Your task to perform on an android device: see tabs open on other devices in the chrome app Image 0: 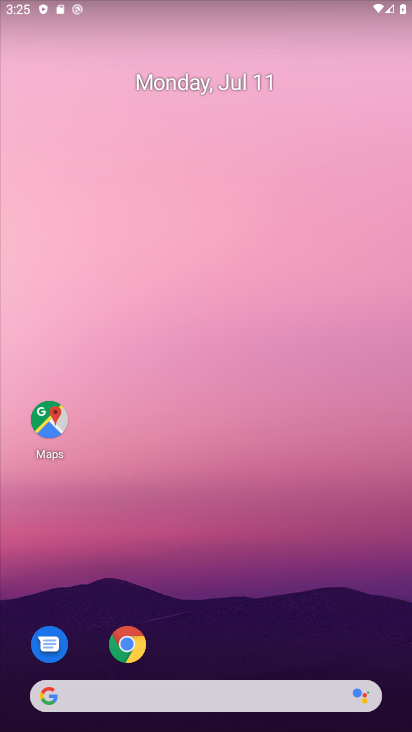
Step 0: drag from (209, 656) to (256, 0)
Your task to perform on an android device: see tabs open on other devices in the chrome app Image 1: 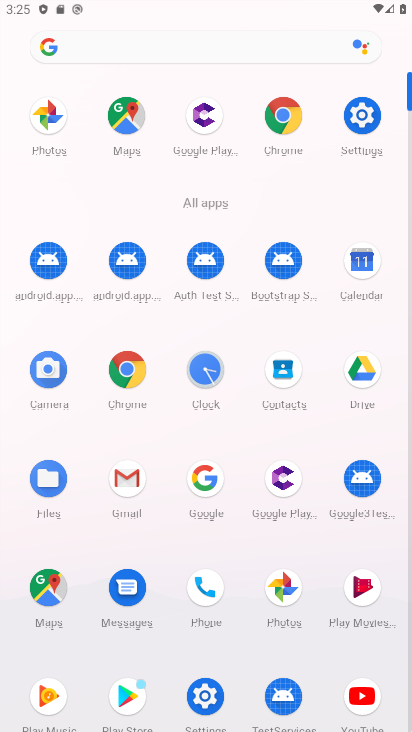
Step 1: click (282, 109)
Your task to perform on an android device: see tabs open on other devices in the chrome app Image 2: 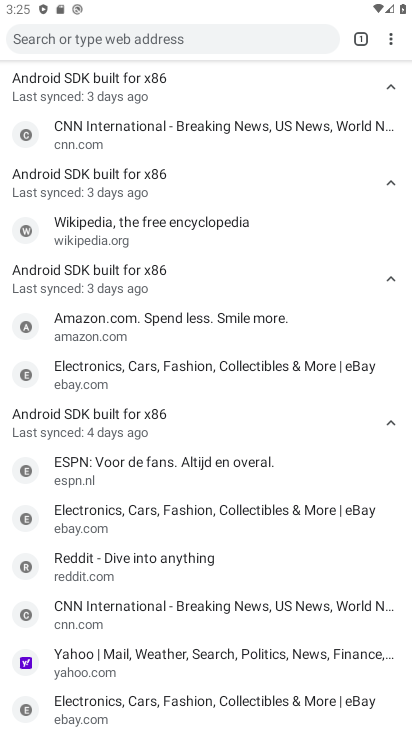
Step 2: click (388, 40)
Your task to perform on an android device: see tabs open on other devices in the chrome app Image 3: 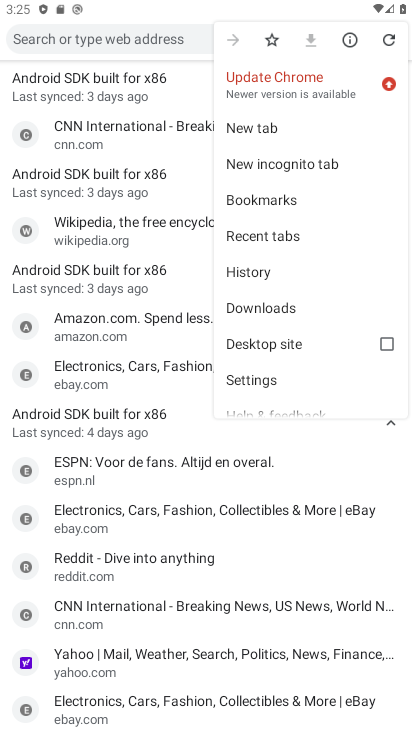
Step 3: click (300, 229)
Your task to perform on an android device: see tabs open on other devices in the chrome app Image 4: 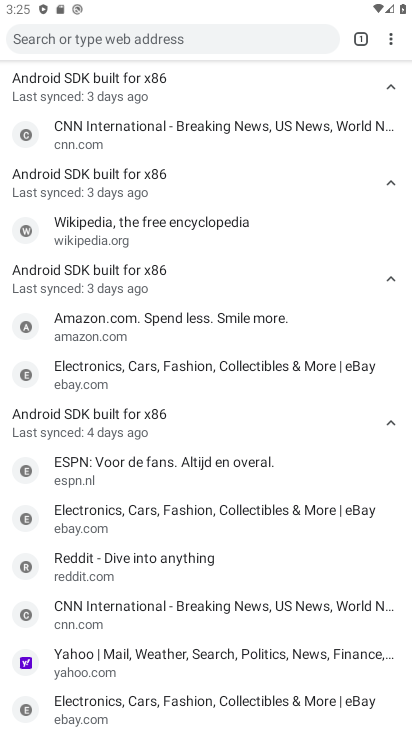
Step 4: task complete